Your task to perform on an android device: When is my next appointment? Image 0: 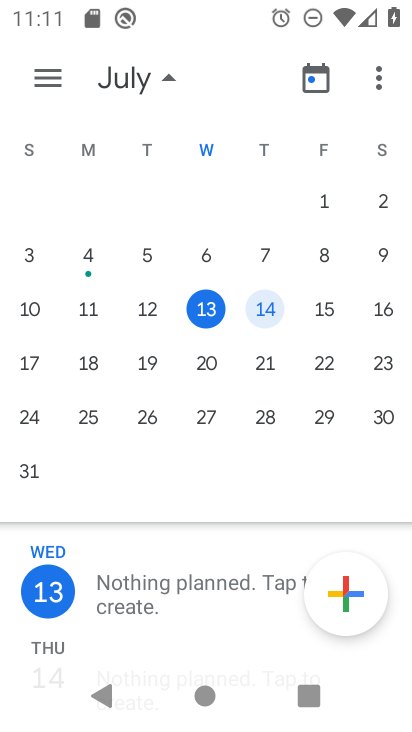
Step 0: press home button
Your task to perform on an android device: When is my next appointment? Image 1: 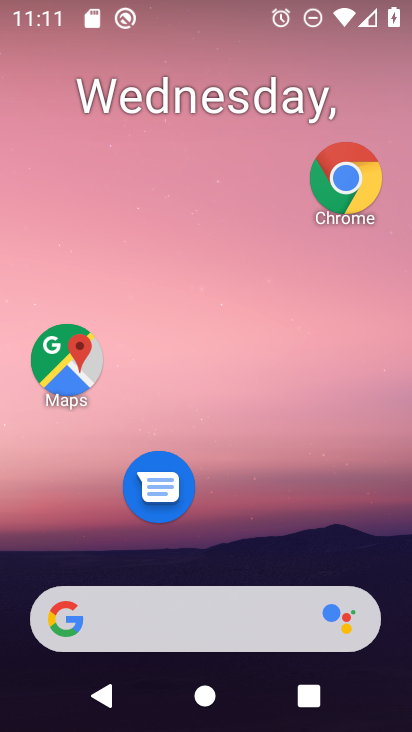
Step 1: drag from (240, 624) to (301, 187)
Your task to perform on an android device: When is my next appointment? Image 2: 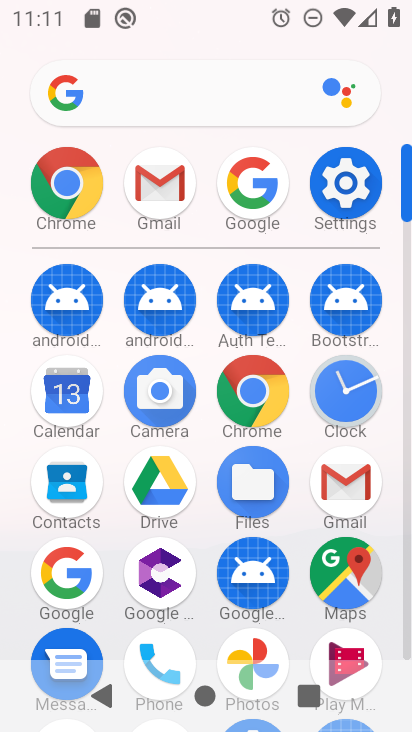
Step 2: click (65, 415)
Your task to perform on an android device: When is my next appointment? Image 3: 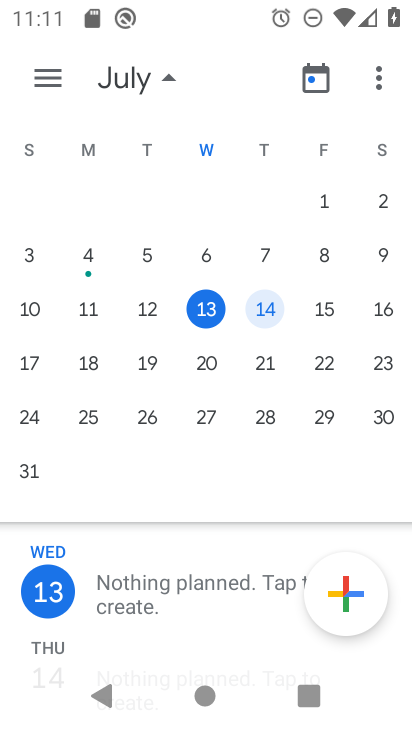
Step 3: click (56, 83)
Your task to perform on an android device: When is my next appointment? Image 4: 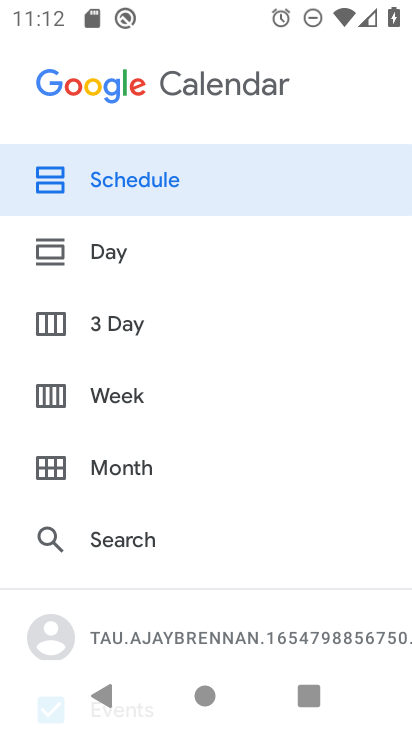
Step 4: drag from (202, 528) to (260, 6)
Your task to perform on an android device: When is my next appointment? Image 5: 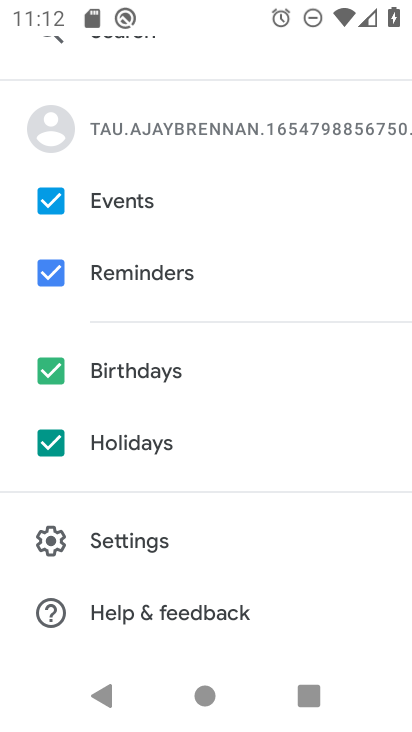
Step 5: click (68, 441)
Your task to perform on an android device: When is my next appointment? Image 6: 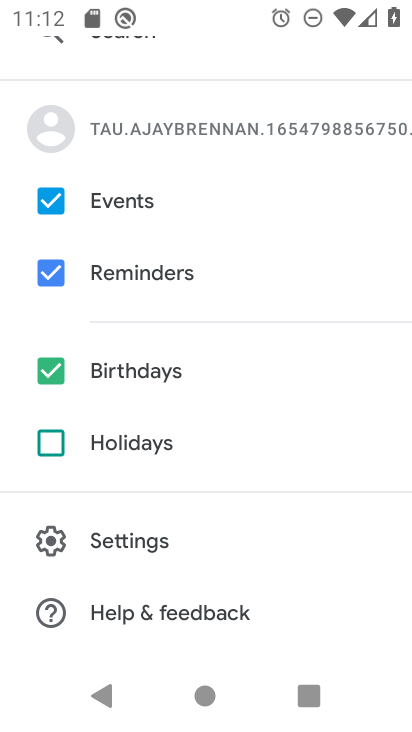
Step 6: click (55, 365)
Your task to perform on an android device: When is my next appointment? Image 7: 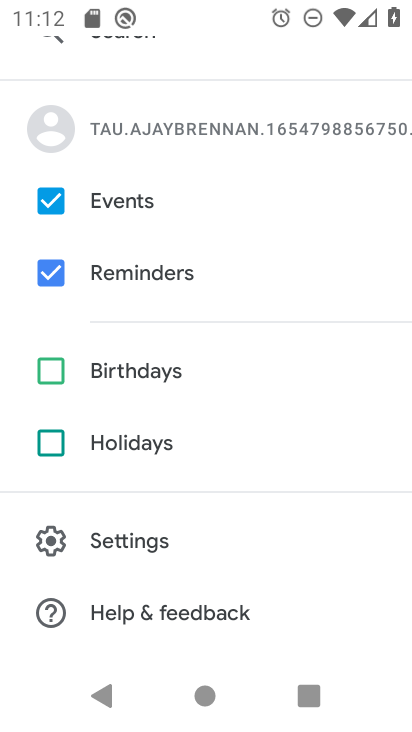
Step 7: task complete